Your task to perform on an android device: Go to Reddit.com Image 0: 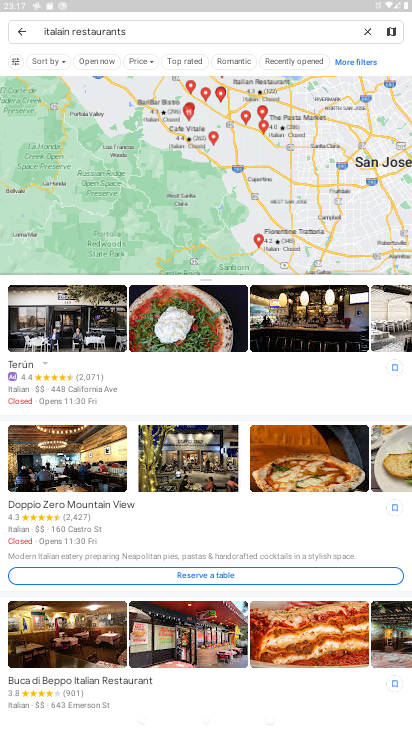
Step 0: press home button
Your task to perform on an android device: Go to Reddit.com Image 1: 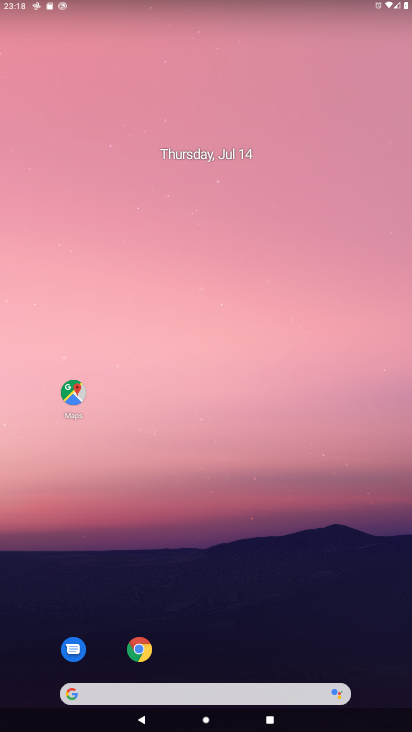
Step 1: click (137, 654)
Your task to perform on an android device: Go to Reddit.com Image 2: 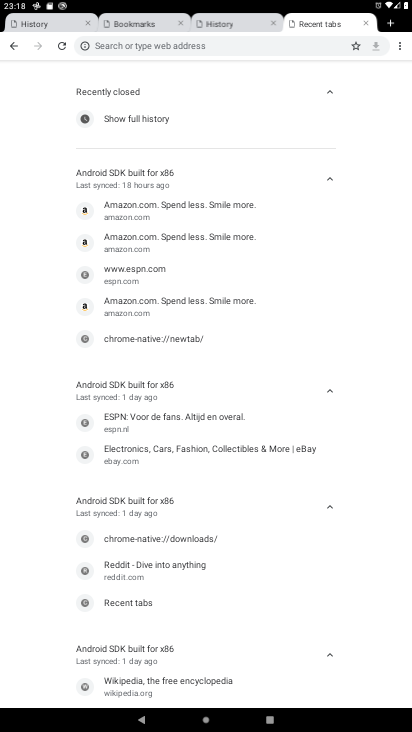
Step 2: click (243, 47)
Your task to perform on an android device: Go to Reddit.com Image 3: 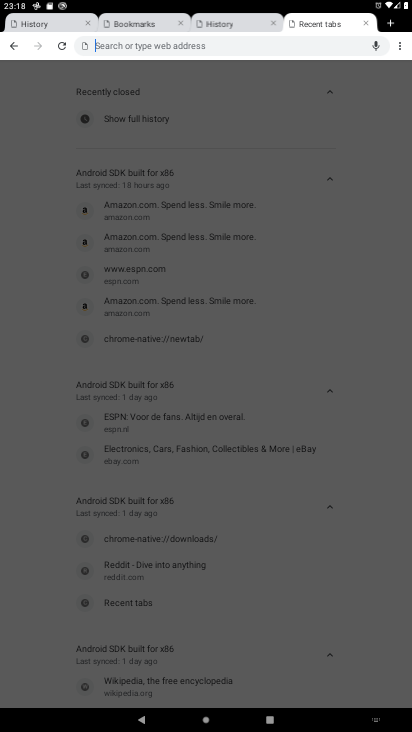
Step 3: type "reddit.com"
Your task to perform on an android device: Go to Reddit.com Image 4: 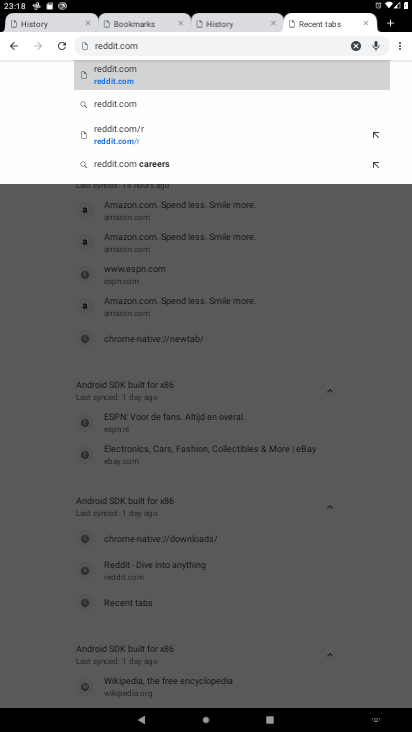
Step 4: click (155, 71)
Your task to perform on an android device: Go to Reddit.com Image 5: 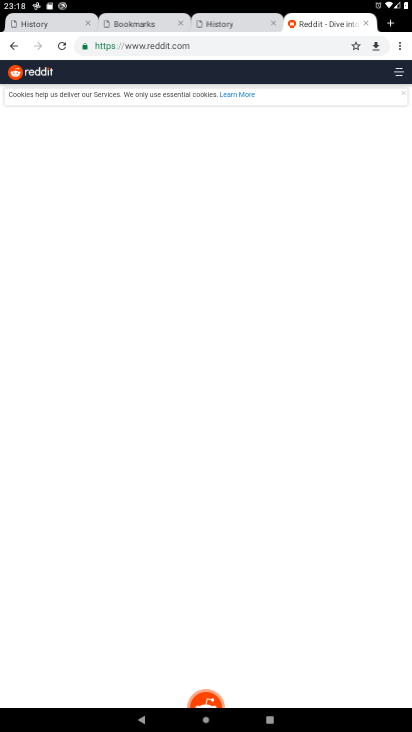
Step 5: task complete